Your task to perform on an android device: Open internet settings Image 0: 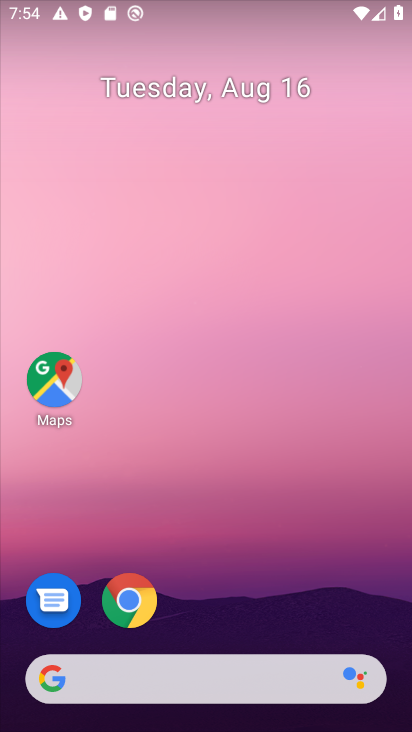
Step 0: drag from (234, 648) to (343, 70)
Your task to perform on an android device: Open internet settings Image 1: 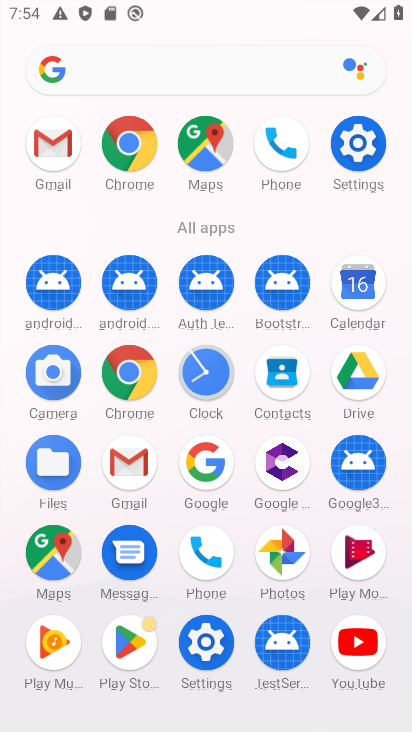
Step 1: click (358, 164)
Your task to perform on an android device: Open internet settings Image 2: 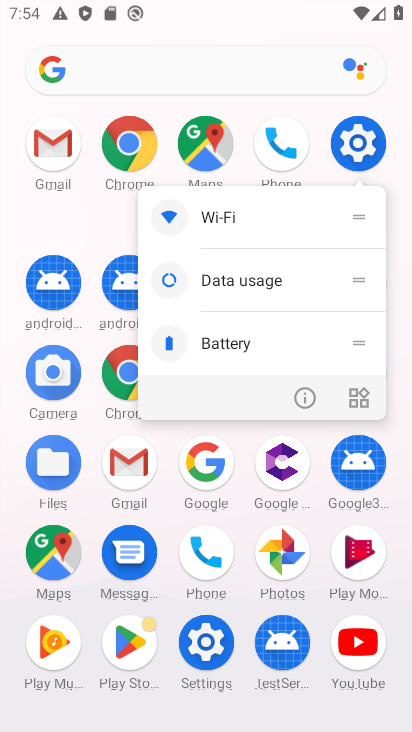
Step 2: click (374, 139)
Your task to perform on an android device: Open internet settings Image 3: 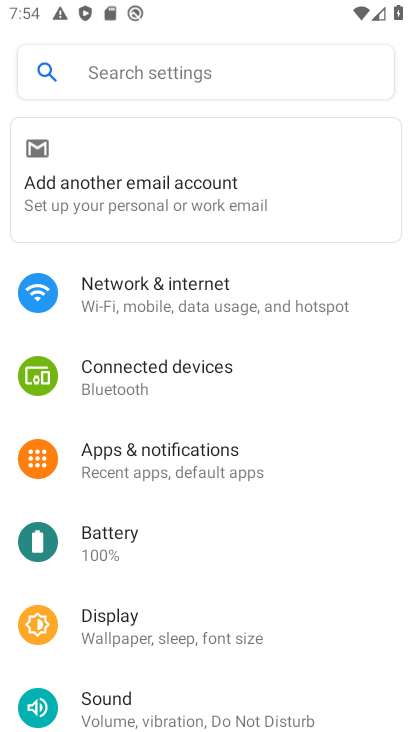
Step 3: click (164, 284)
Your task to perform on an android device: Open internet settings Image 4: 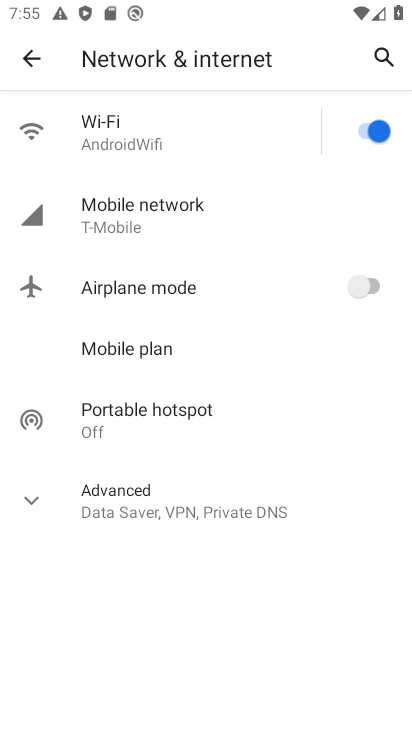
Step 4: task complete